Your task to perform on an android device: Search for a new lawnmower on Lowes. Image 0: 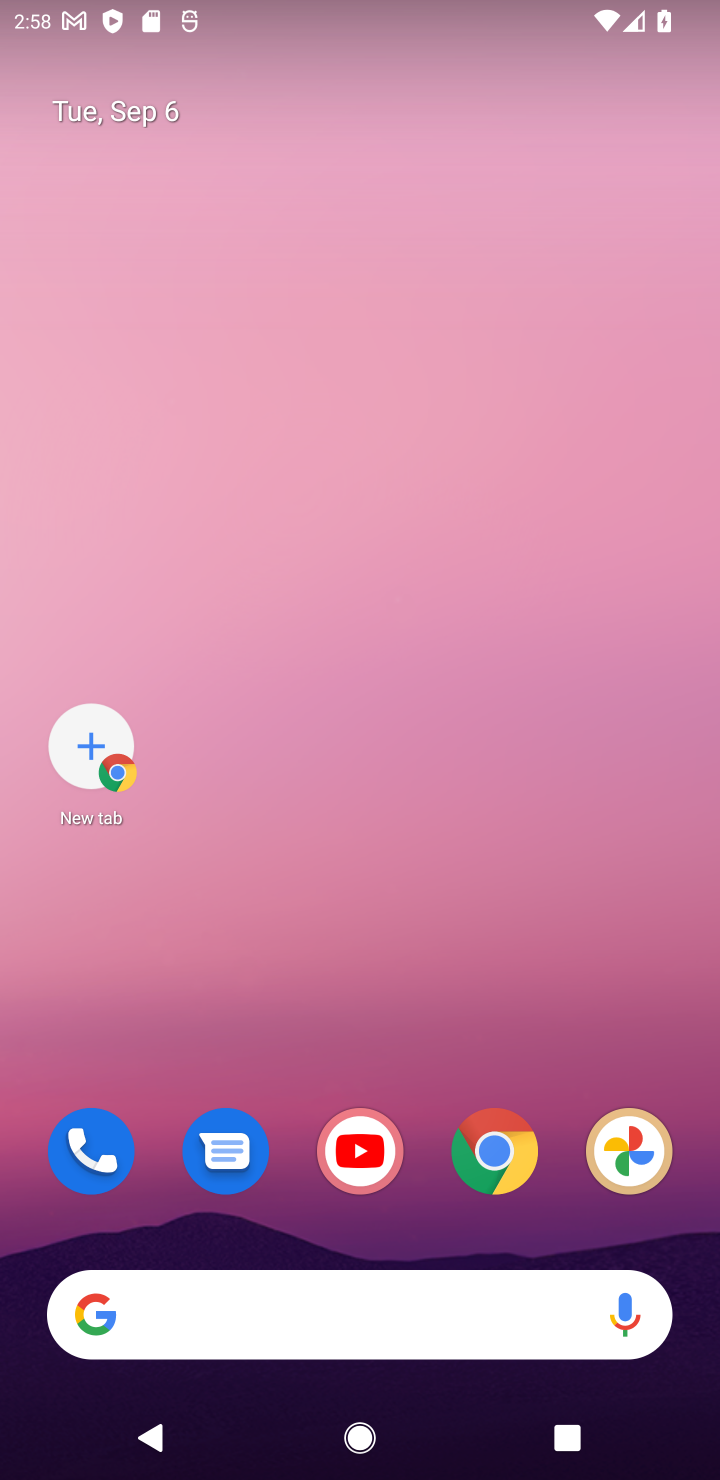
Step 0: press home button
Your task to perform on an android device: Search for a new lawnmower on Lowes. Image 1: 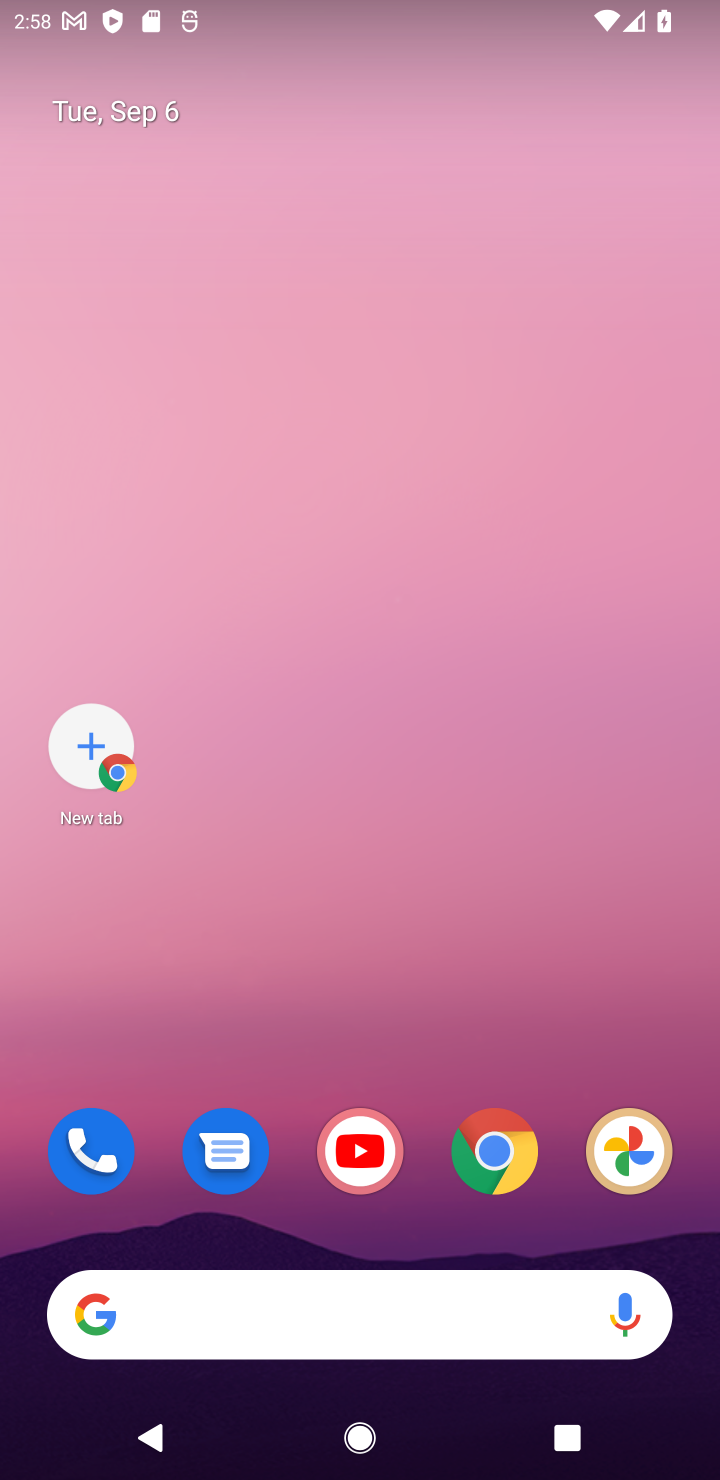
Step 1: click (500, 1164)
Your task to perform on an android device: Search for a new lawnmower on Lowes. Image 2: 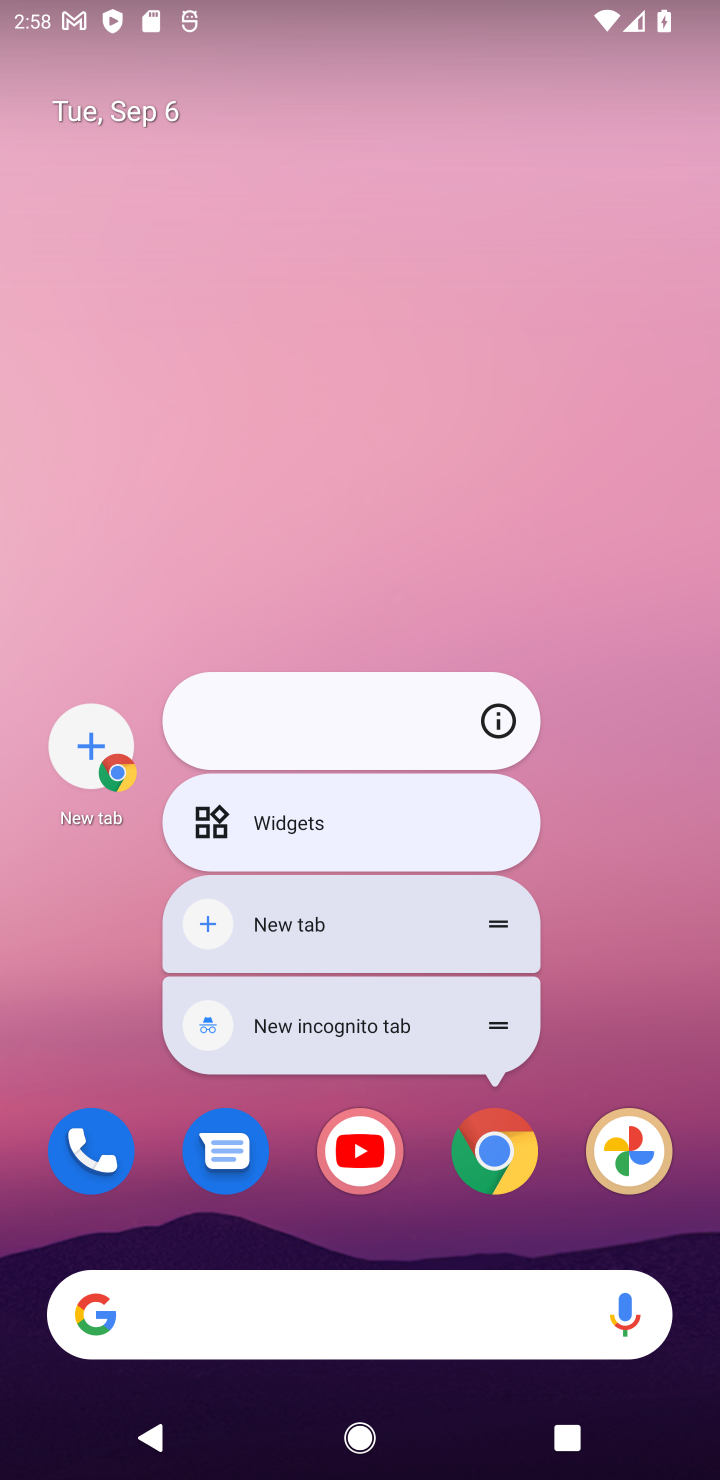
Step 2: click (509, 1164)
Your task to perform on an android device: Search for a new lawnmower on Lowes. Image 3: 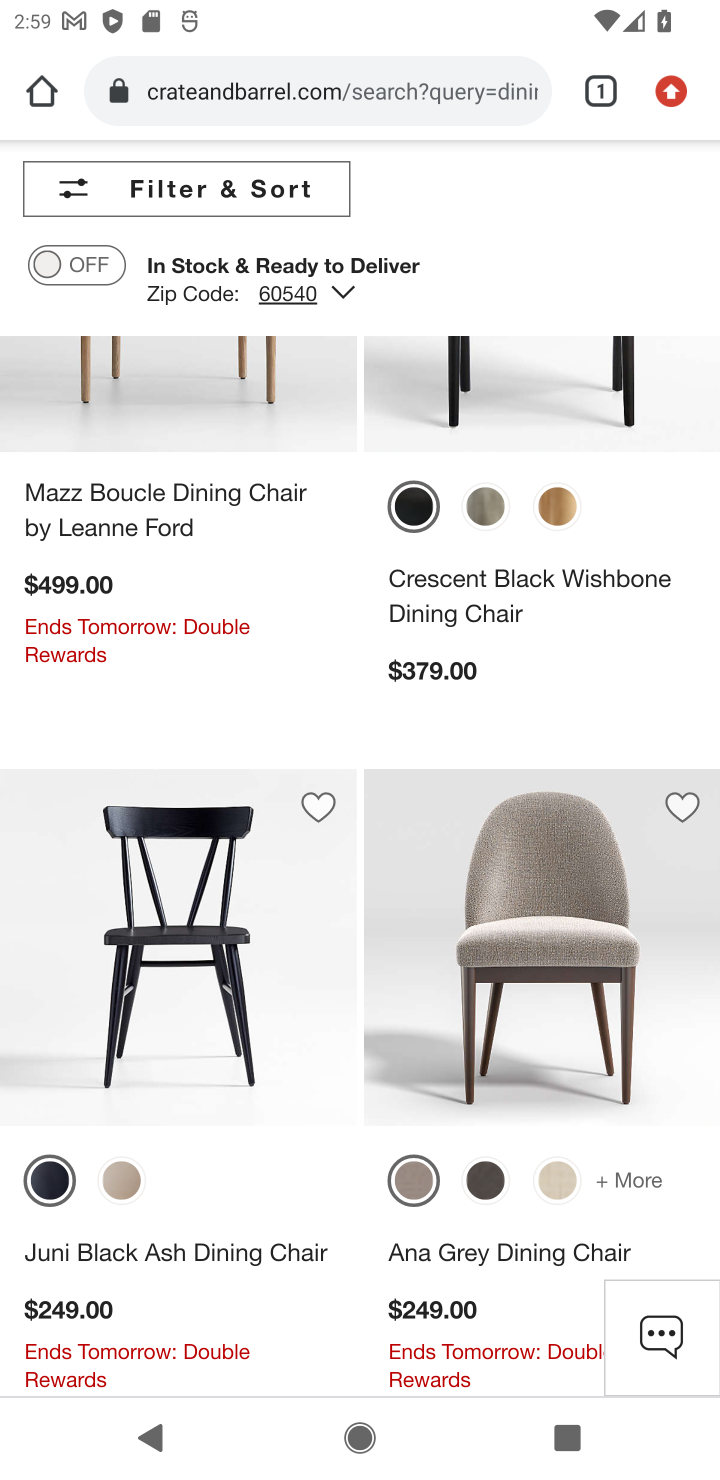
Step 3: click (240, 73)
Your task to perform on an android device: Search for a new lawnmower on Lowes. Image 4: 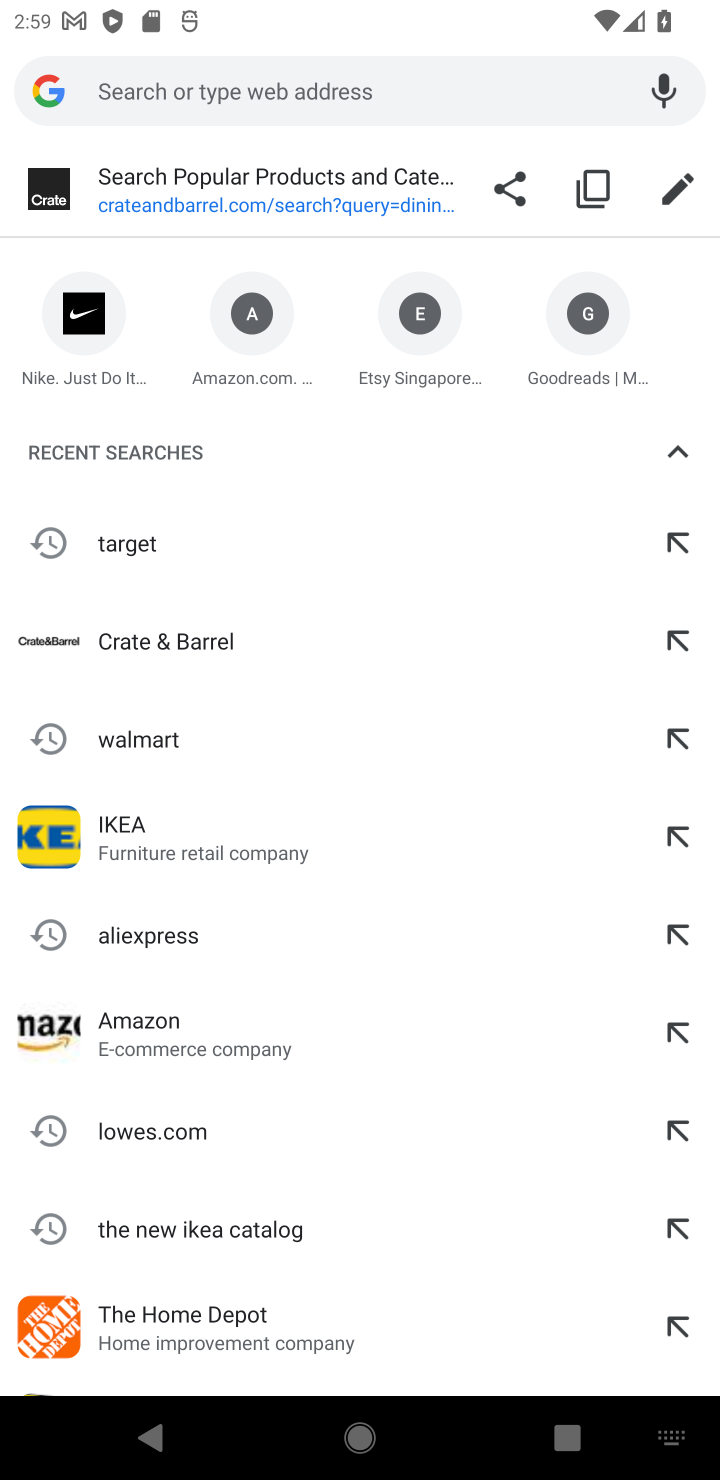
Step 4: type "lowes"
Your task to perform on an android device: Search for a new lawnmower on Lowes. Image 5: 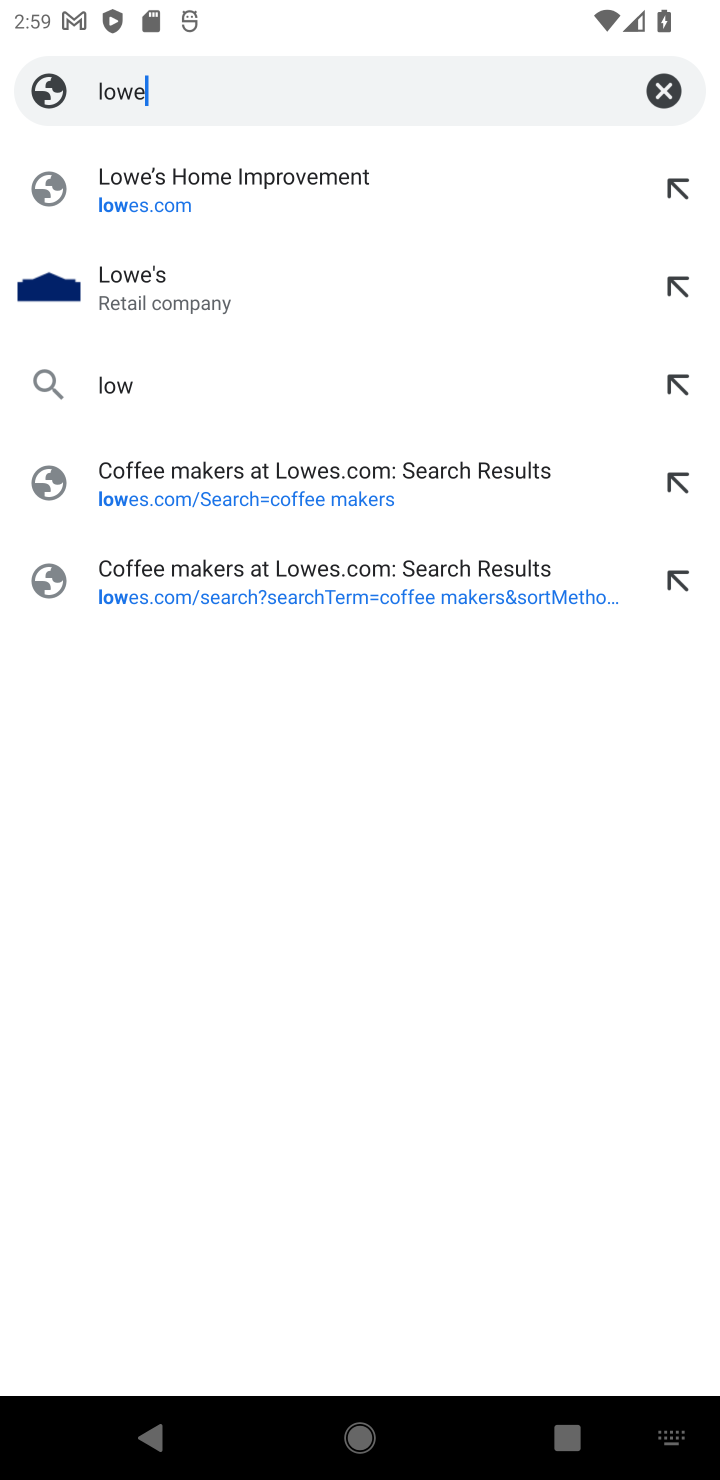
Step 5: type ""
Your task to perform on an android device: Search for a new lawnmower on Lowes. Image 6: 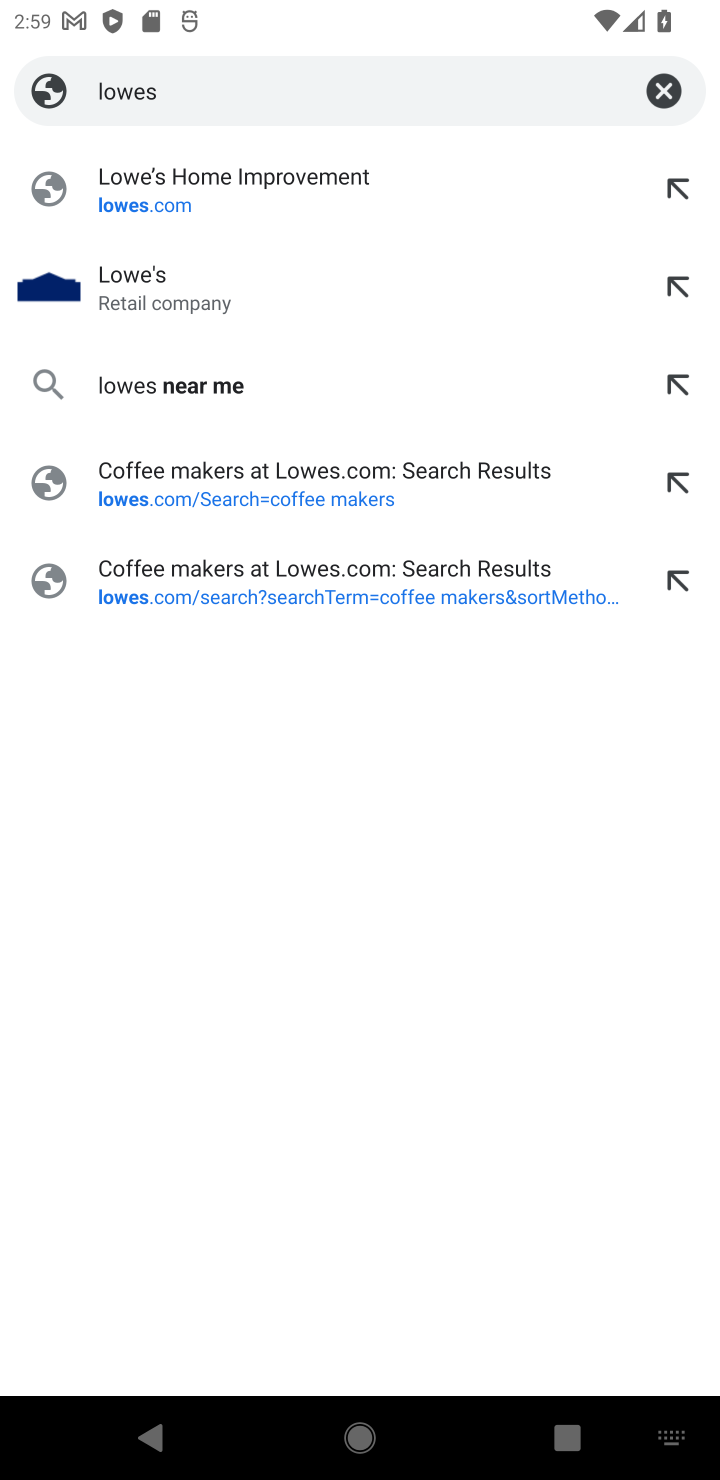
Step 6: click (140, 281)
Your task to perform on an android device: Search for a new lawnmower on Lowes. Image 7: 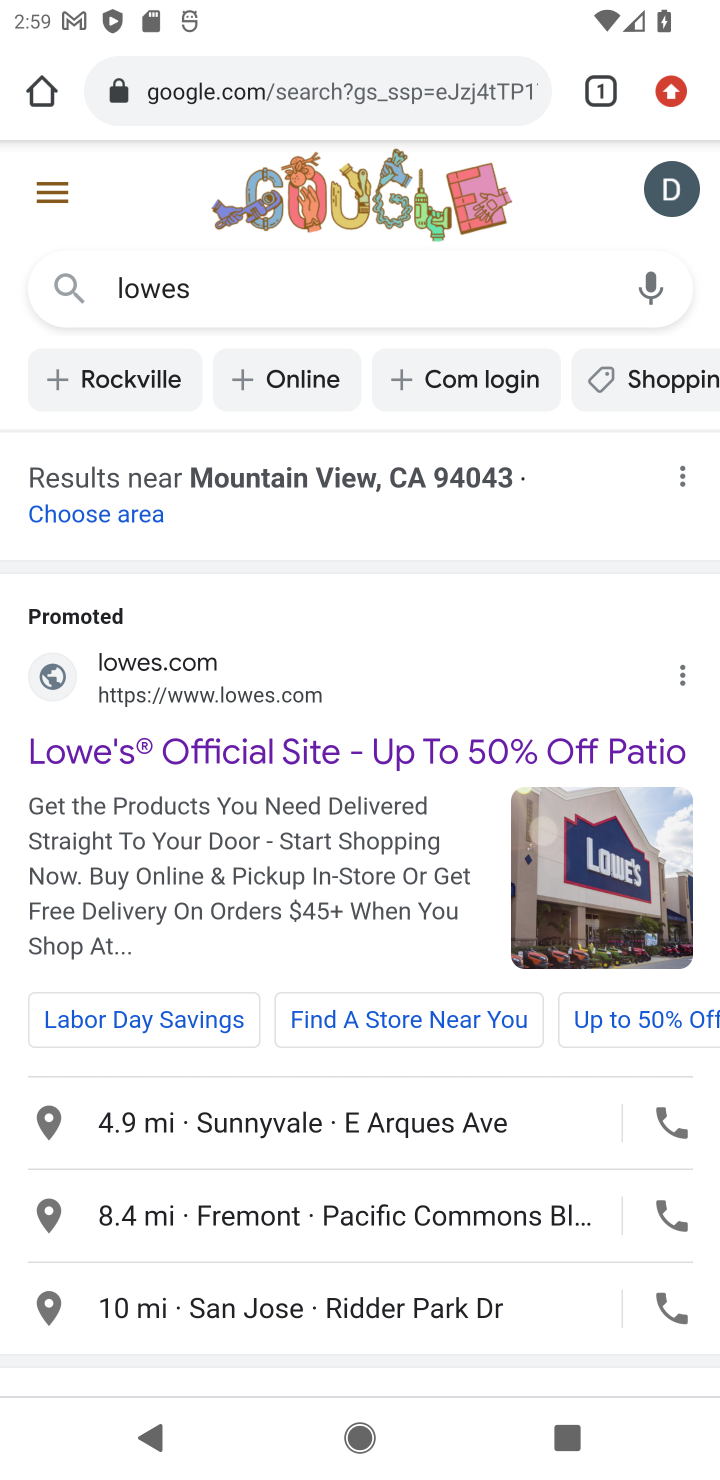
Step 7: drag from (240, 949) to (353, 448)
Your task to perform on an android device: Search for a new lawnmower on Lowes. Image 8: 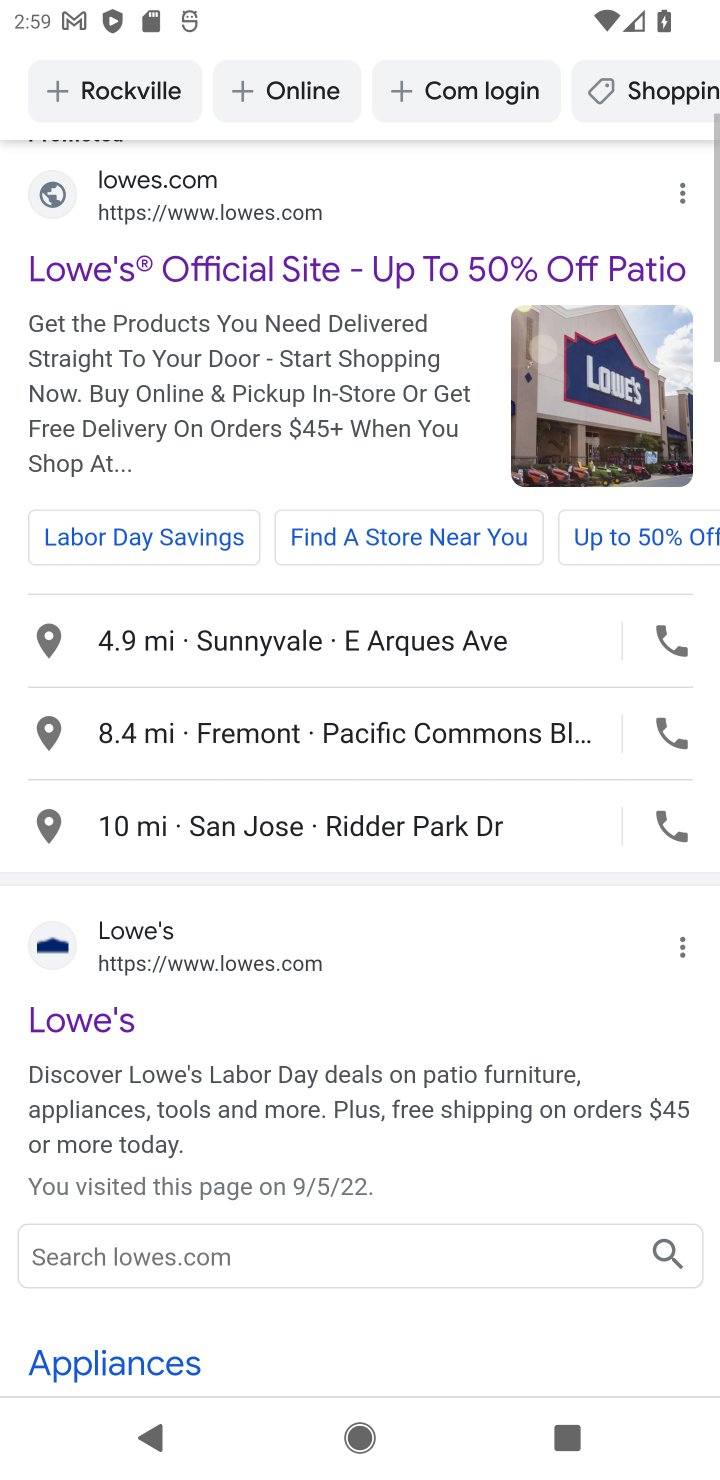
Step 8: click (56, 1134)
Your task to perform on an android device: Search for a new lawnmower on Lowes. Image 9: 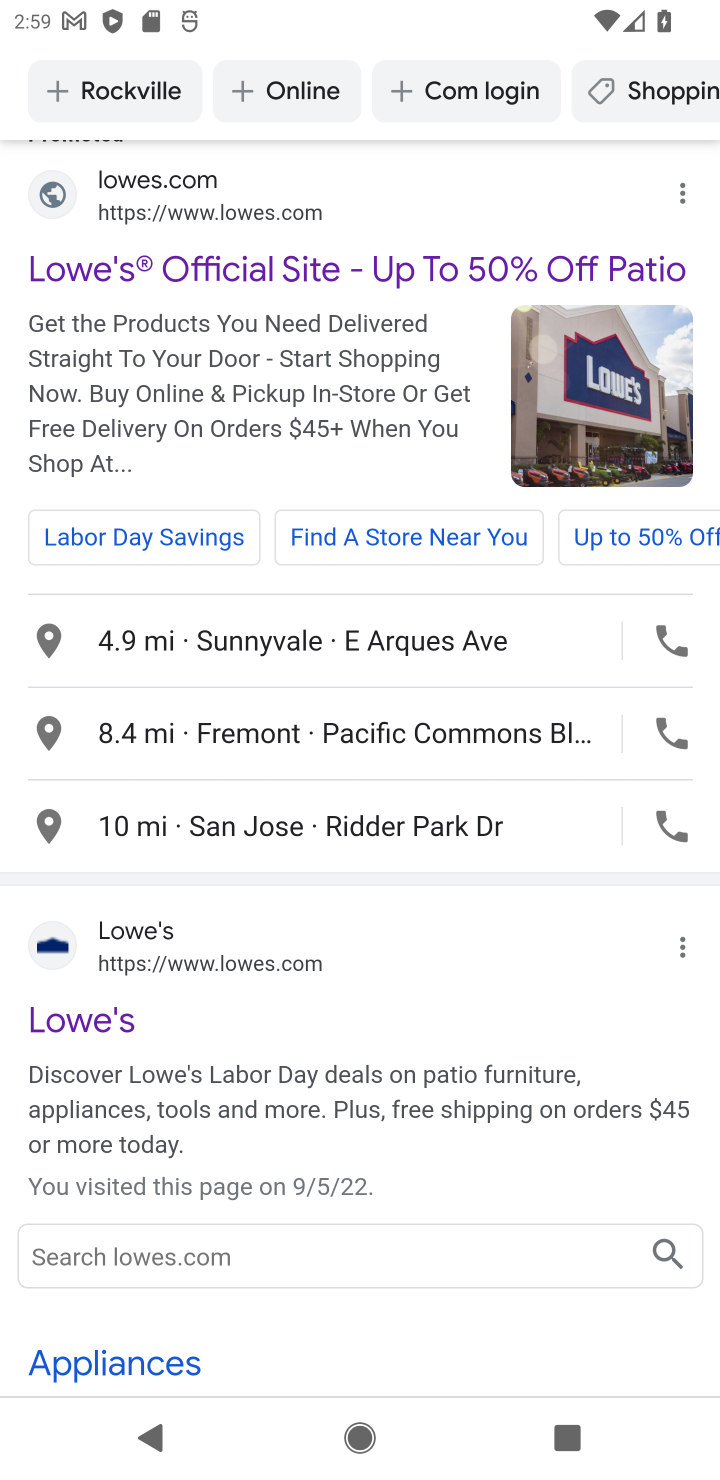
Step 9: click (88, 1018)
Your task to perform on an android device: Search for a new lawnmower on Lowes. Image 10: 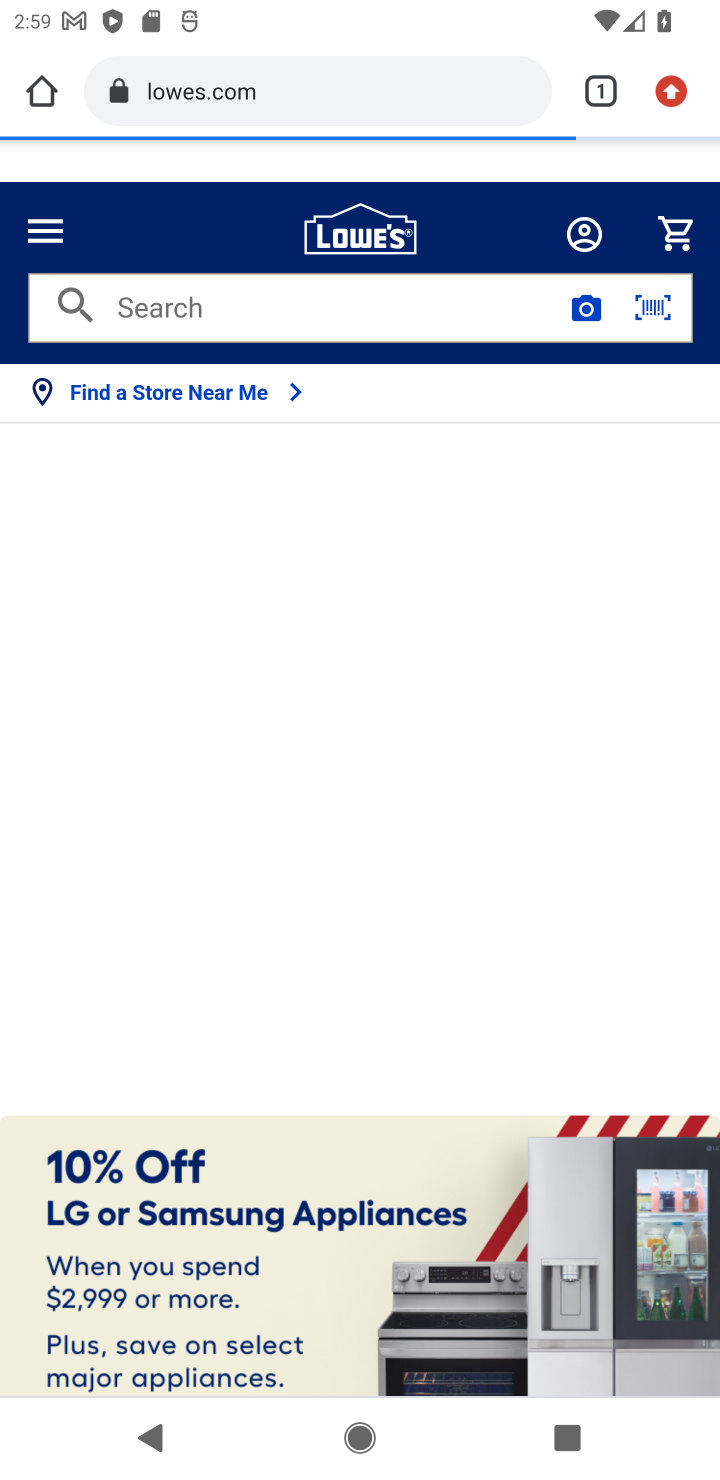
Step 10: click (241, 308)
Your task to perform on an android device: Search for a new lawnmower on Lowes. Image 11: 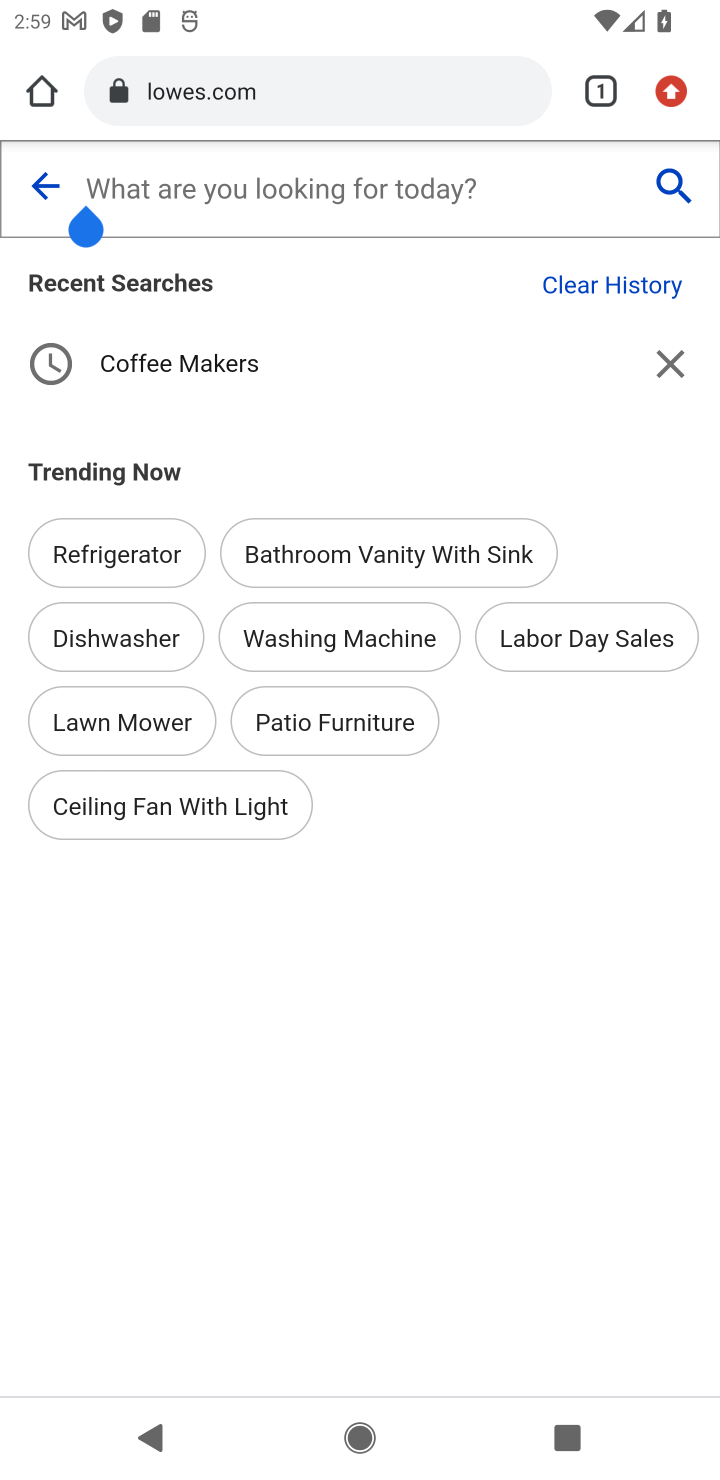
Step 11: type "lawnmower"
Your task to perform on an android device: Search for a new lawnmower on Lowes. Image 12: 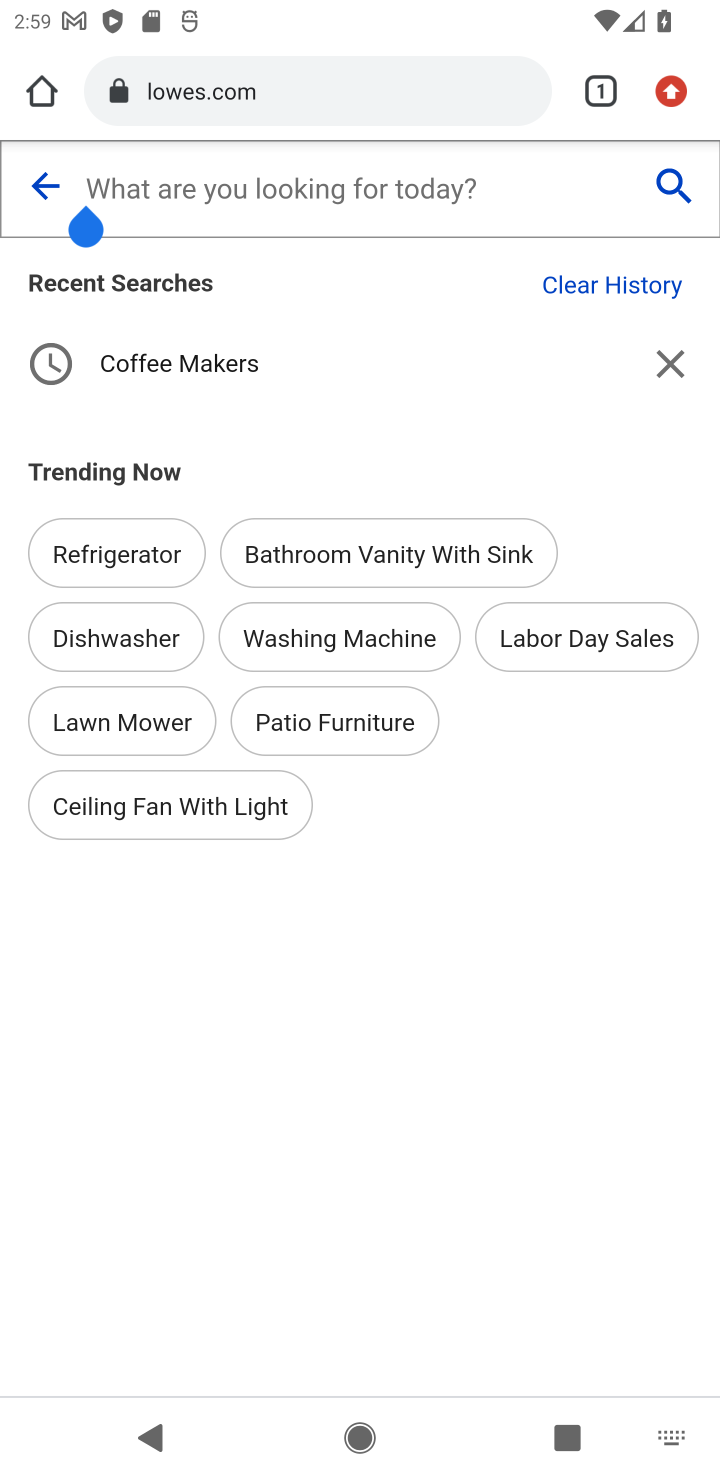
Step 12: type ""
Your task to perform on an android device: Search for a new lawnmower on Lowes. Image 13: 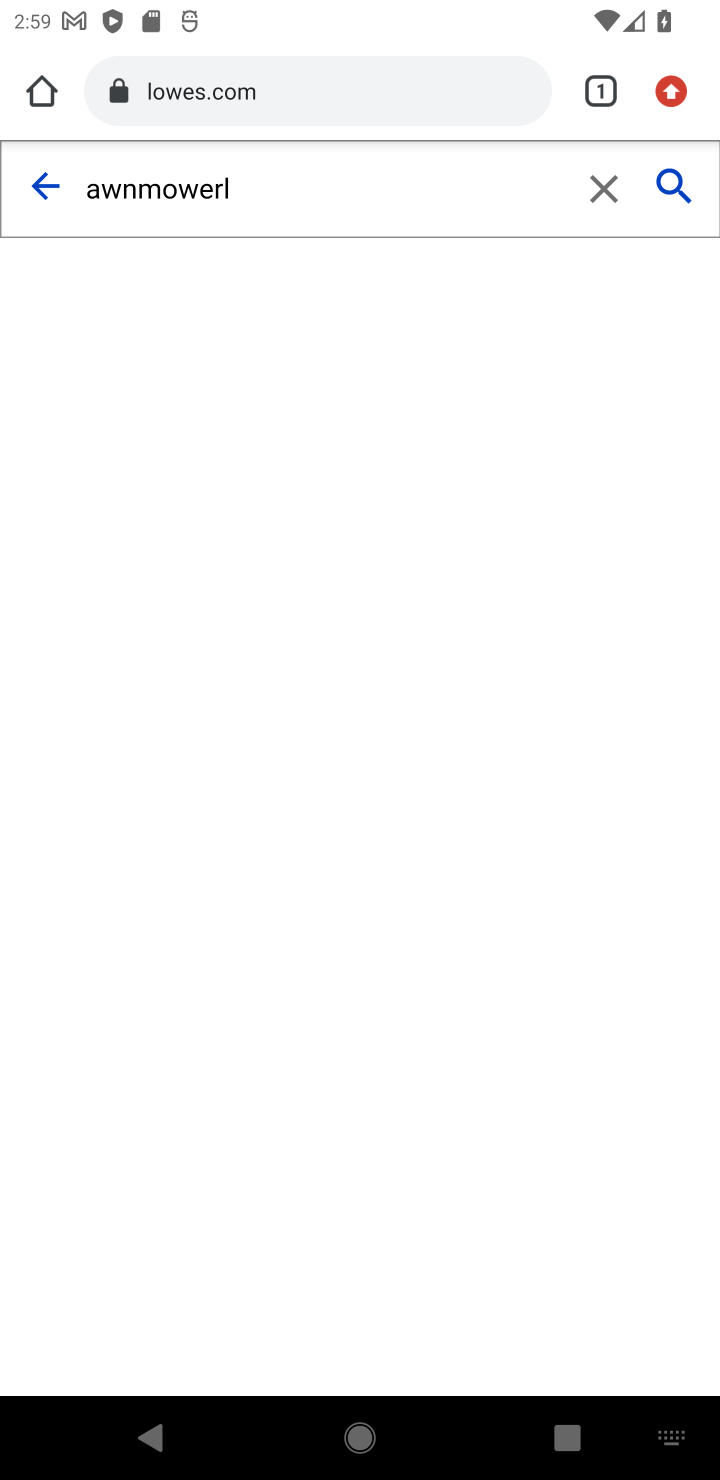
Step 13: click (90, 185)
Your task to perform on an android device: Search for a new lawnmower on Lowes. Image 14: 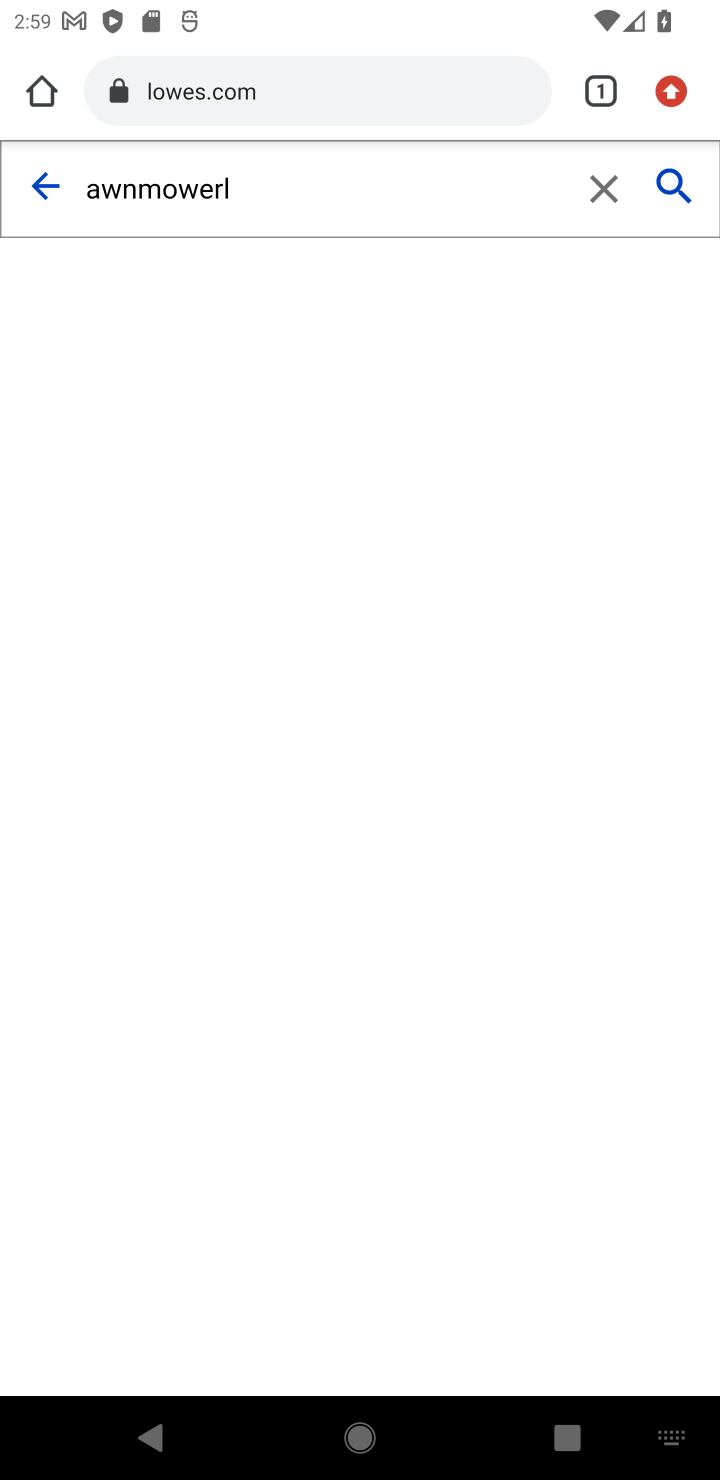
Step 14: click (88, 185)
Your task to perform on an android device: Search for a new lawnmower on Lowes. Image 15: 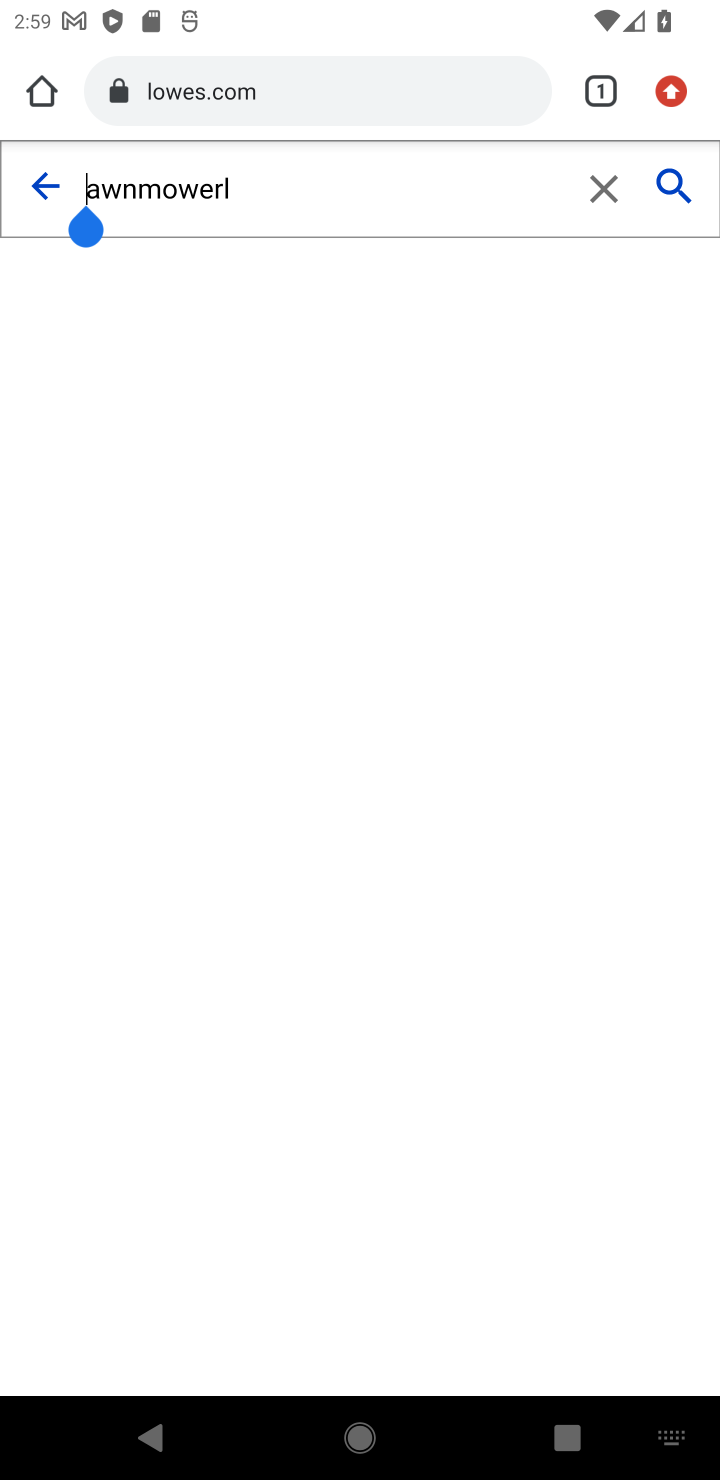
Step 15: click (88, 185)
Your task to perform on an android device: Search for a new lawnmower on Lowes. Image 16: 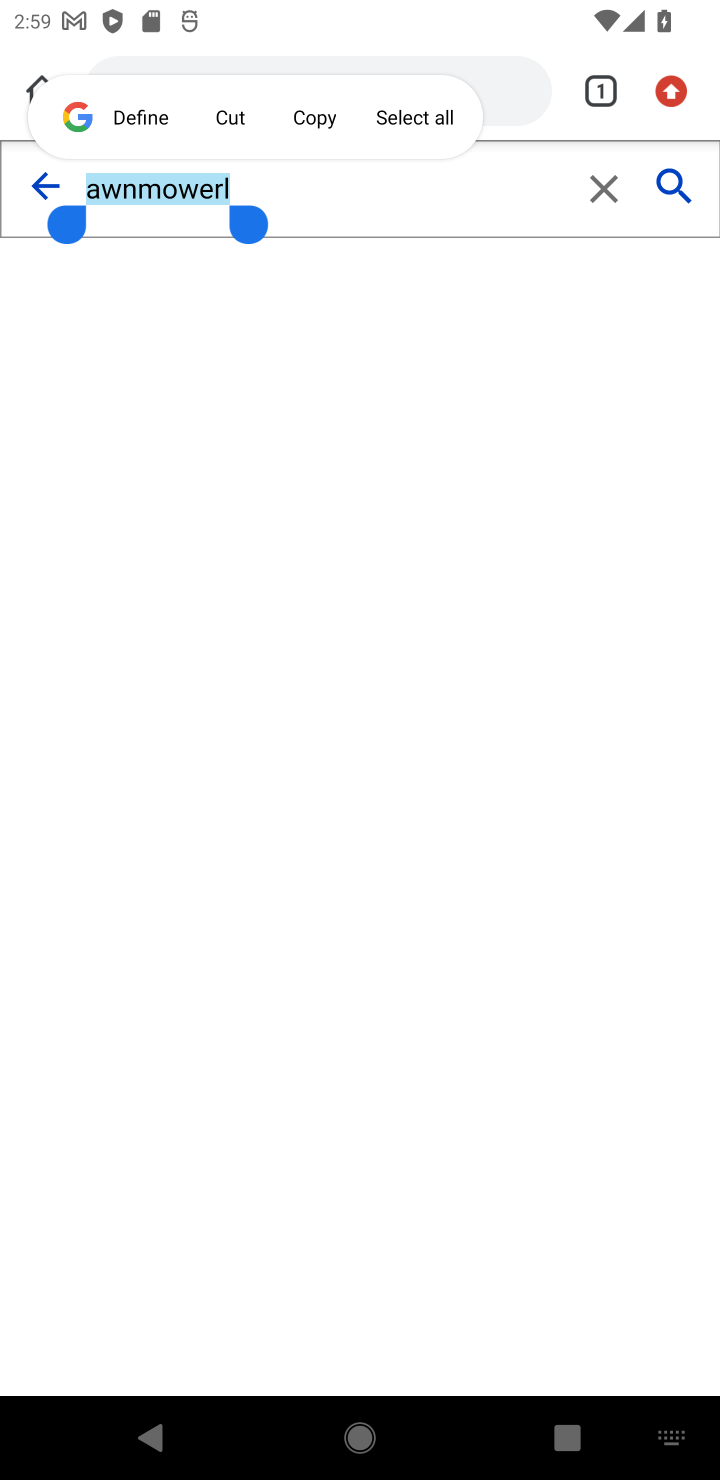
Step 16: type "l"
Your task to perform on an android device: Search for a new lawnmower on Lowes. Image 17: 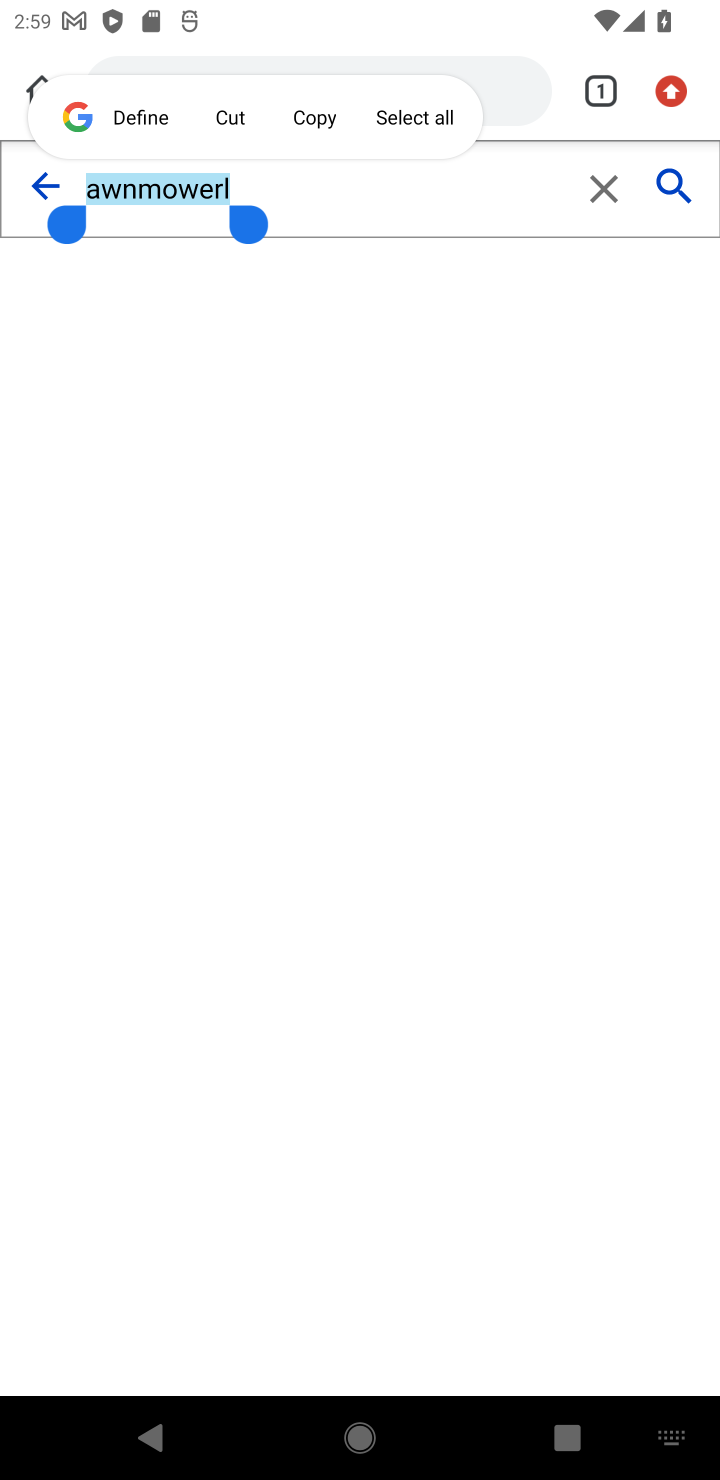
Step 17: click (656, 182)
Your task to perform on an android device: Search for a new lawnmower on Lowes. Image 18: 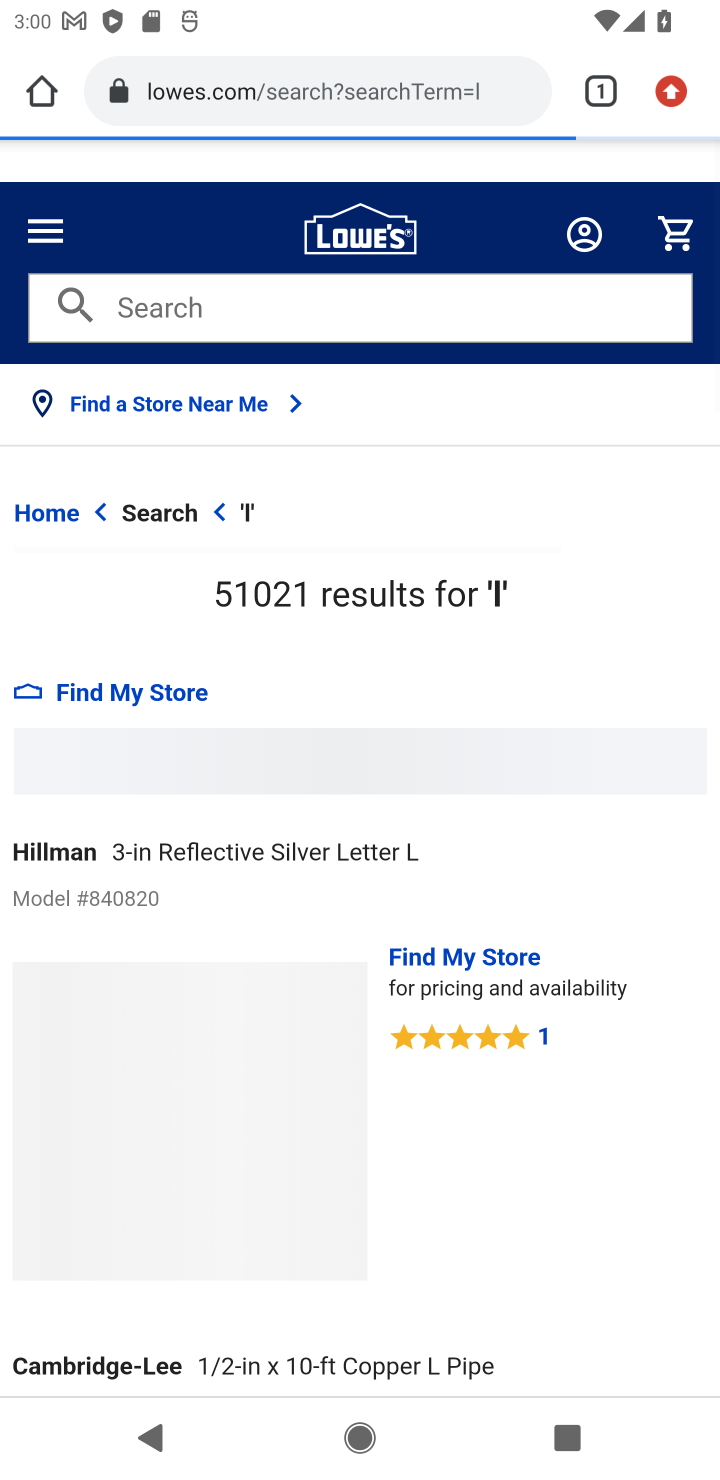
Step 18: click (216, 310)
Your task to perform on an android device: Search for a new lawnmower on Lowes. Image 19: 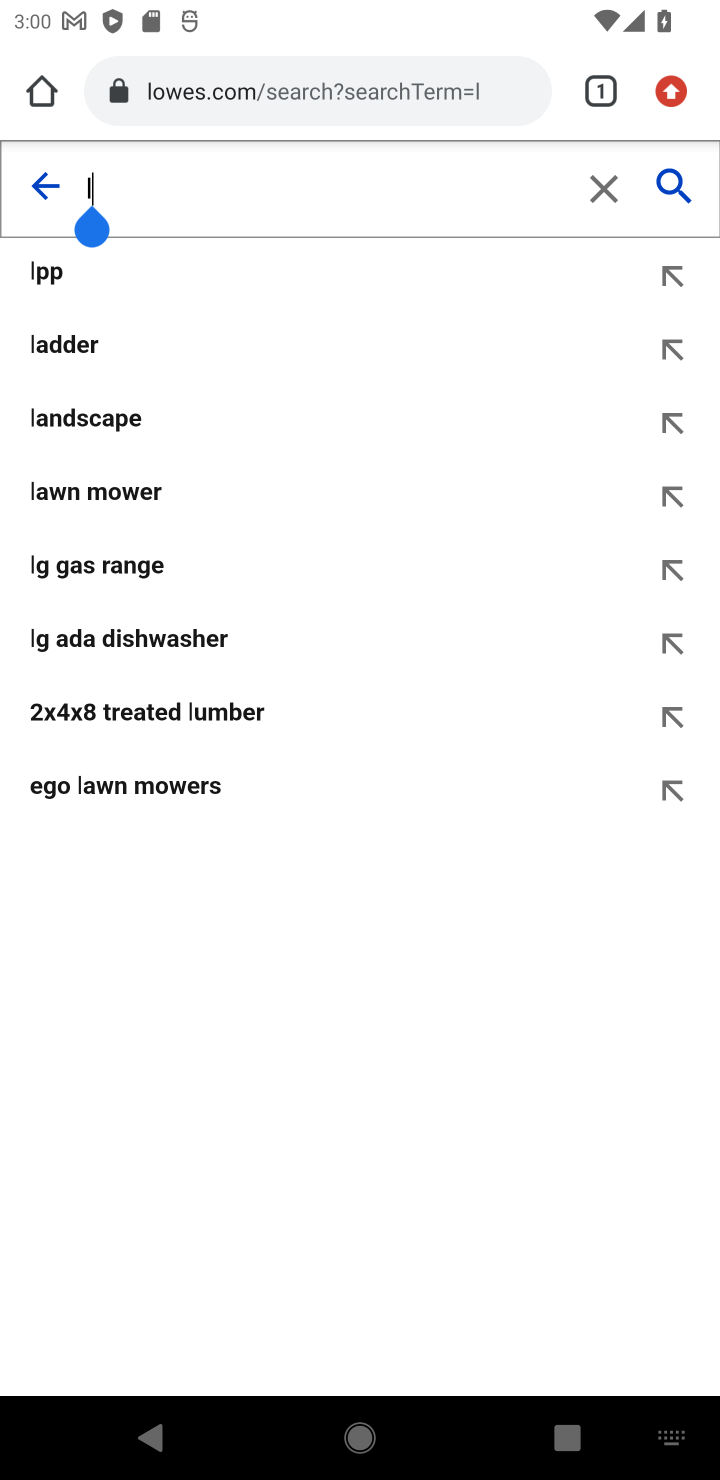
Step 19: type "lawnmower"
Your task to perform on an android device: Search for a new lawnmower on Lowes. Image 20: 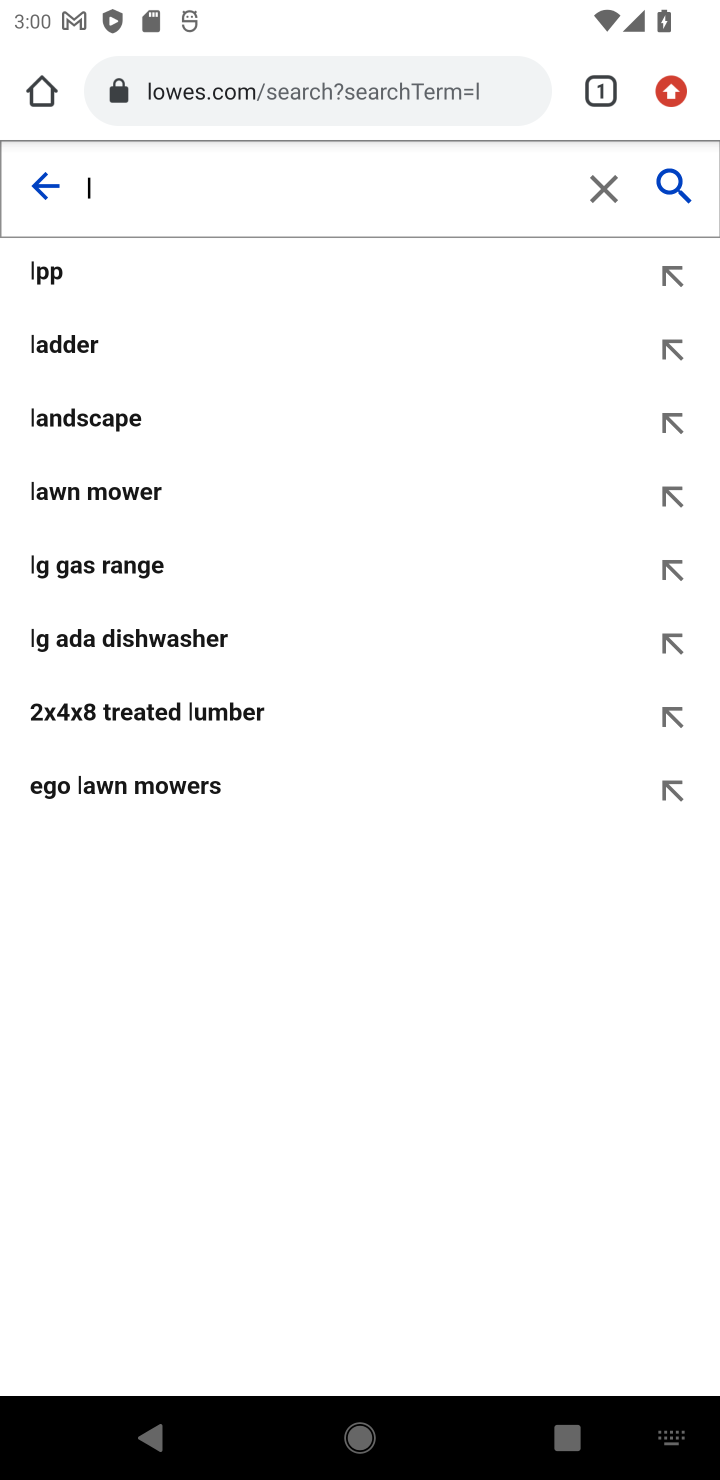
Step 20: type ""
Your task to perform on an android device: Search for a new lawnmower on Lowes. Image 21: 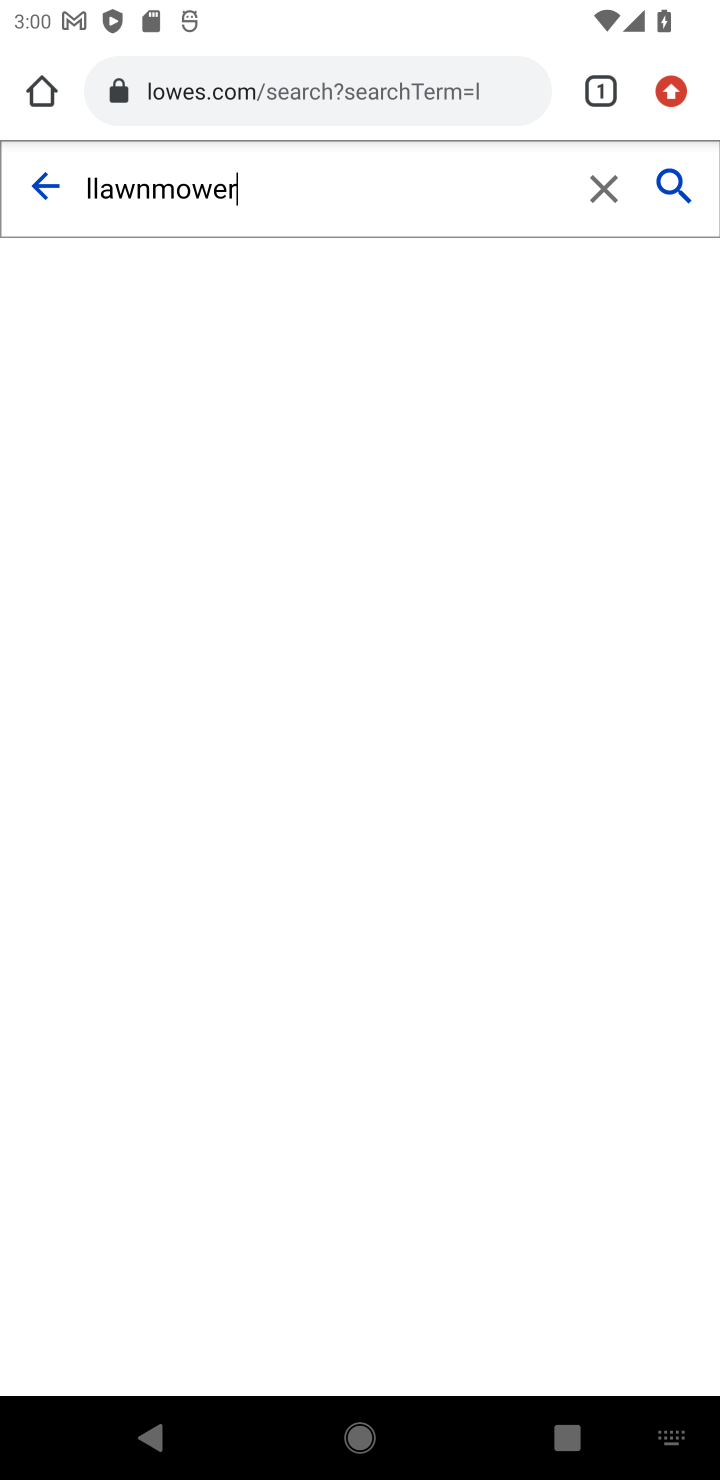
Step 21: type ""
Your task to perform on an android device: Search for a new lawnmower on Lowes. Image 22: 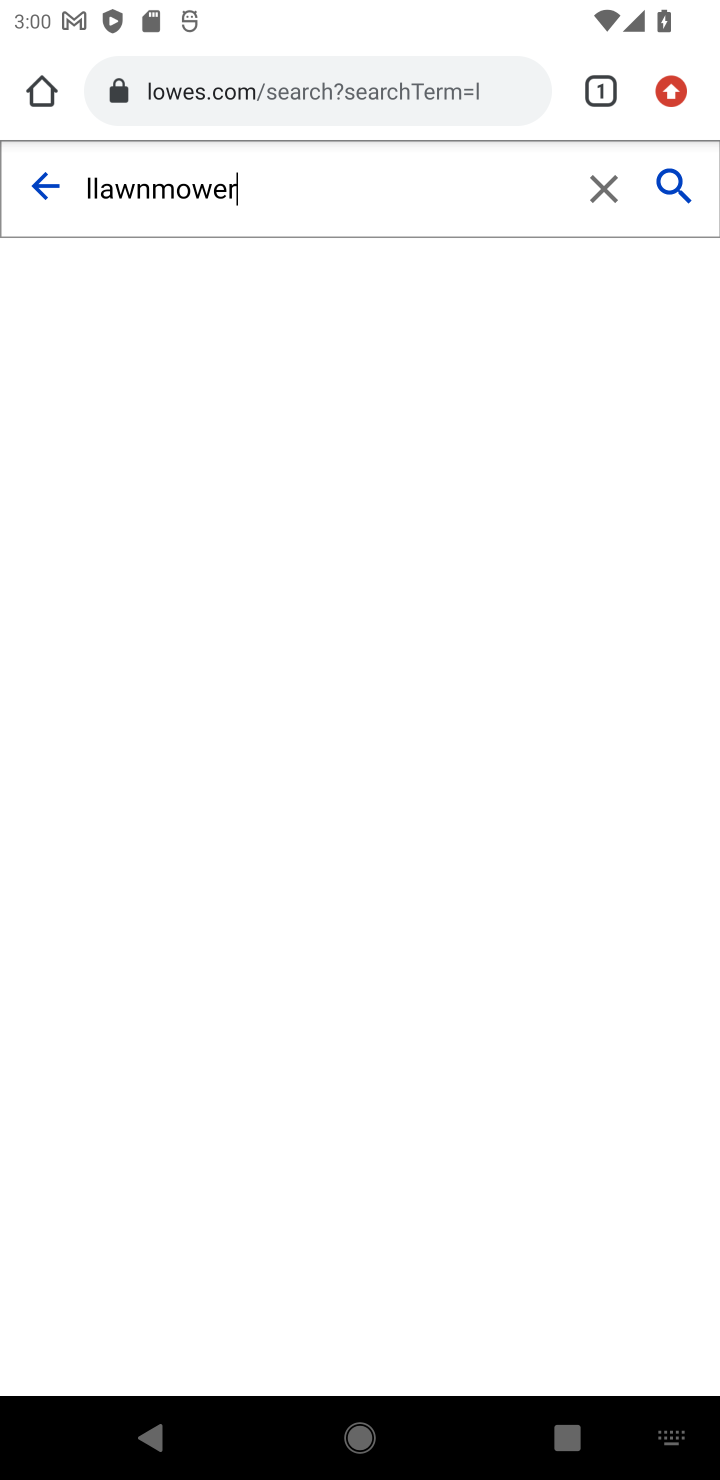
Step 22: press enter
Your task to perform on an android device: Search for a new lawnmower on Lowes. Image 23: 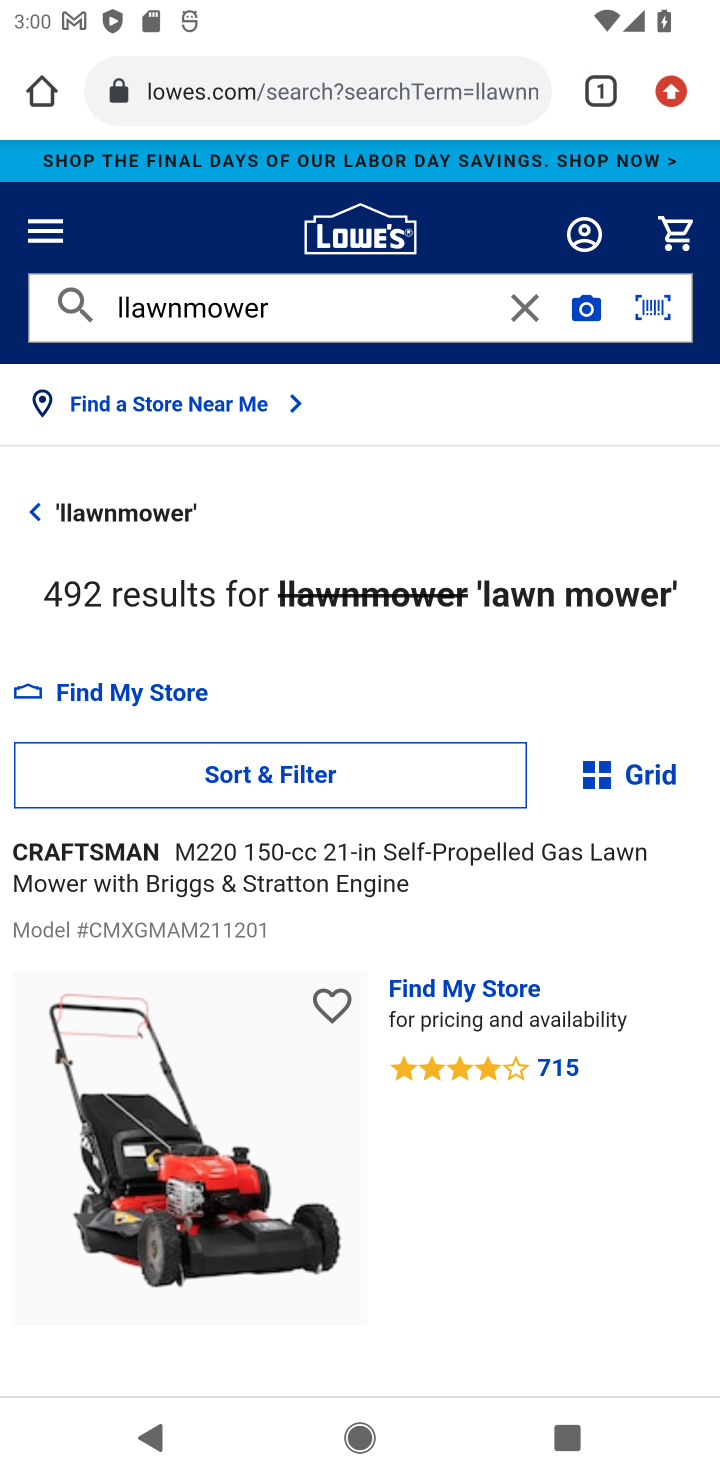
Step 23: task complete